Your task to perform on an android device: turn off location Image 0: 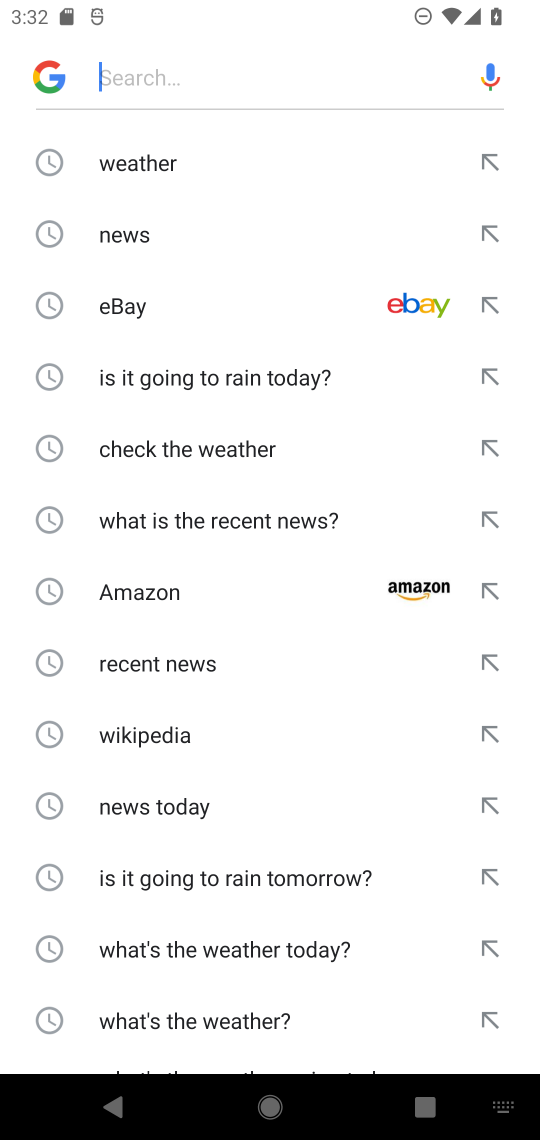
Step 0: press home button
Your task to perform on an android device: turn off location Image 1: 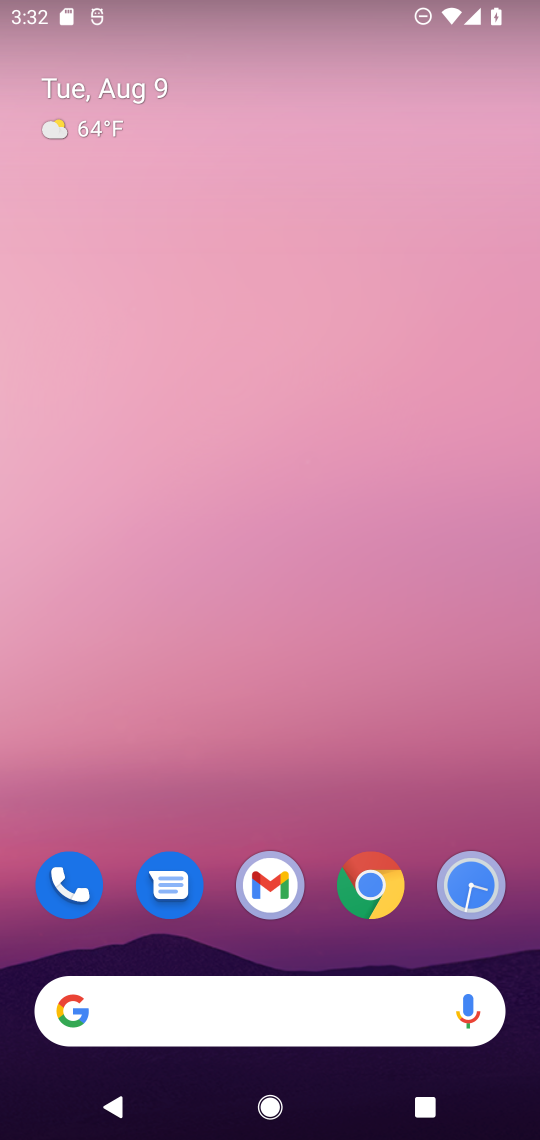
Step 1: drag from (287, 763) to (421, 206)
Your task to perform on an android device: turn off location Image 2: 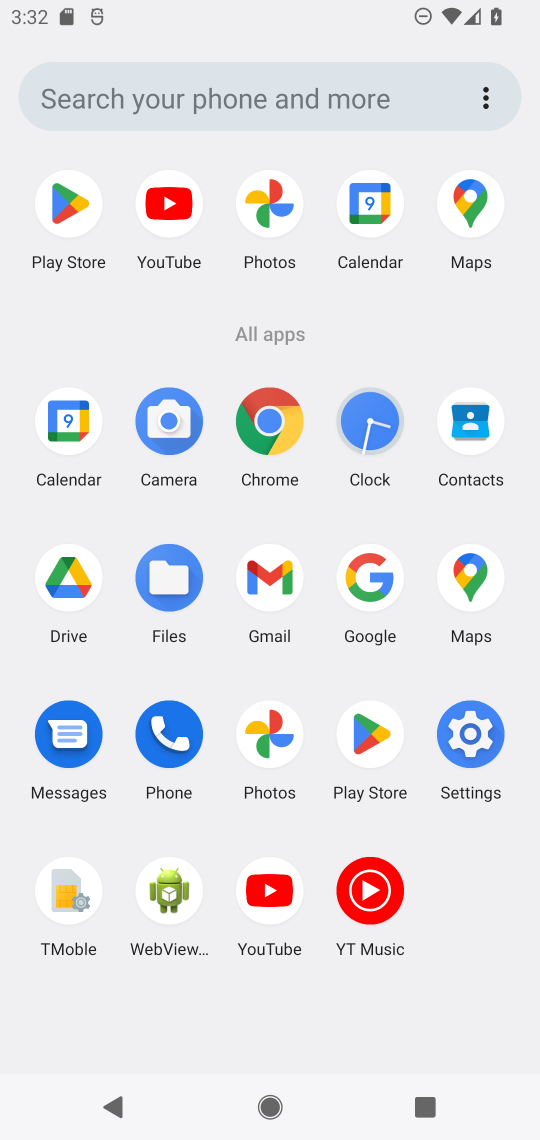
Step 2: click (442, 729)
Your task to perform on an android device: turn off location Image 3: 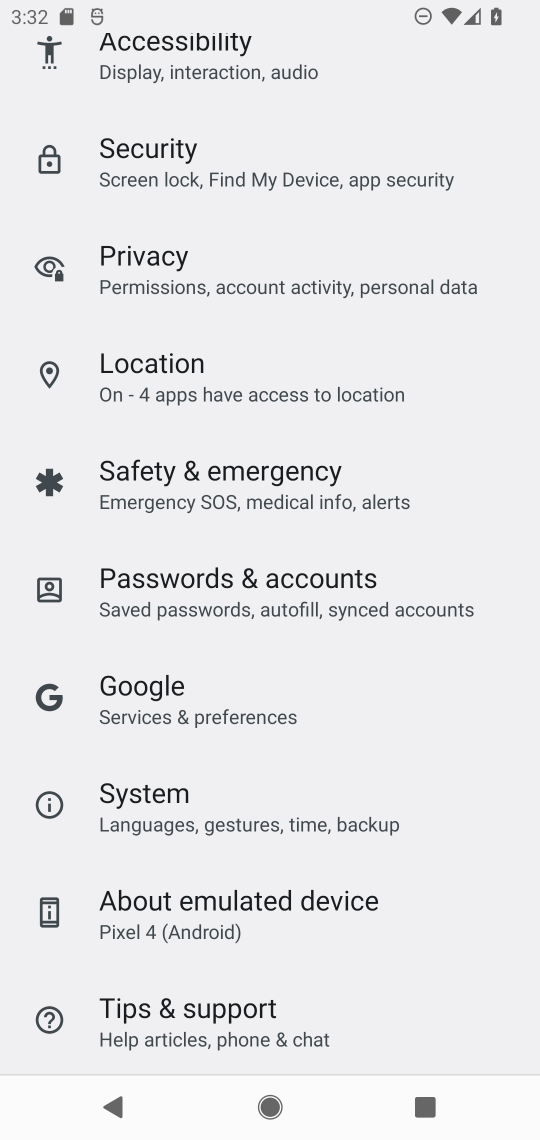
Step 3: click (248, 387)
Your task to perform on an android device: turn off location Image 4: 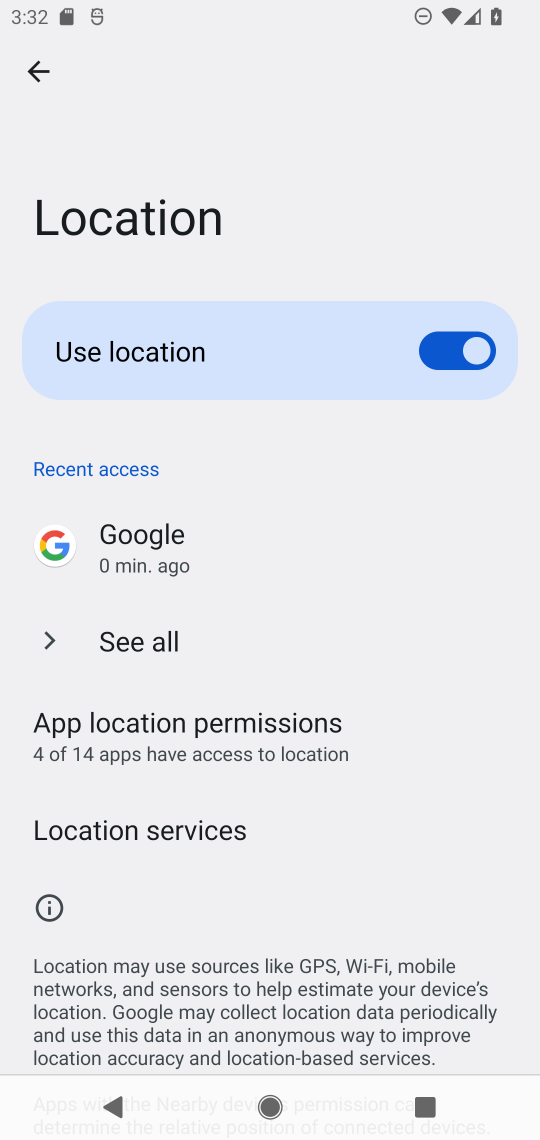
Step 4: click (465, 356)
Your task to perform on an android device: turn off location Image 5: 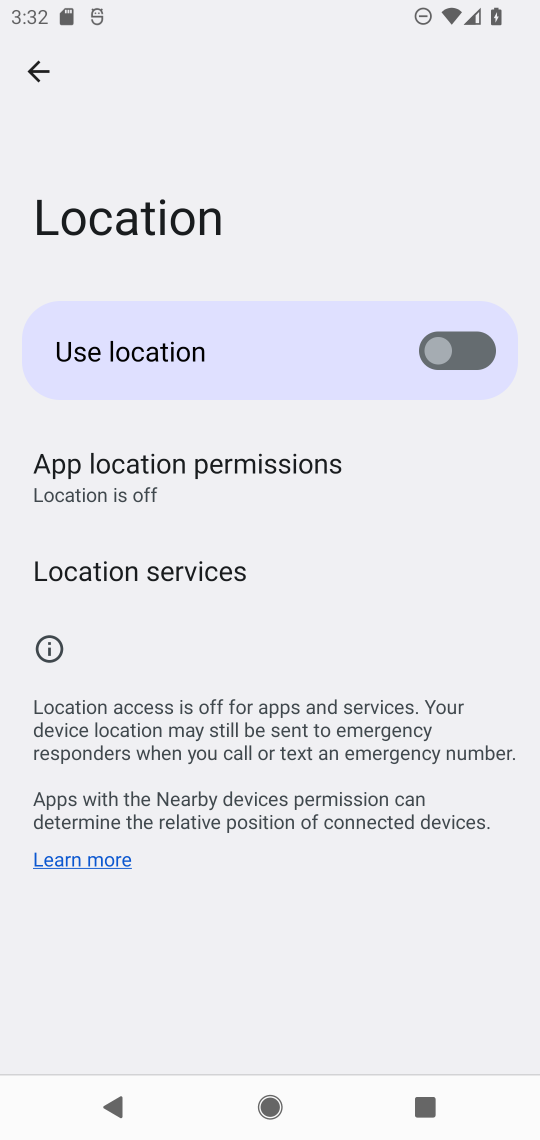
Step 5: task complete